Your task to perform on an android device: Empty the shopping cart on walmart.com. Search for logitech g933 on walmart.com, select the first entry, and add it to the cart. Image 0: 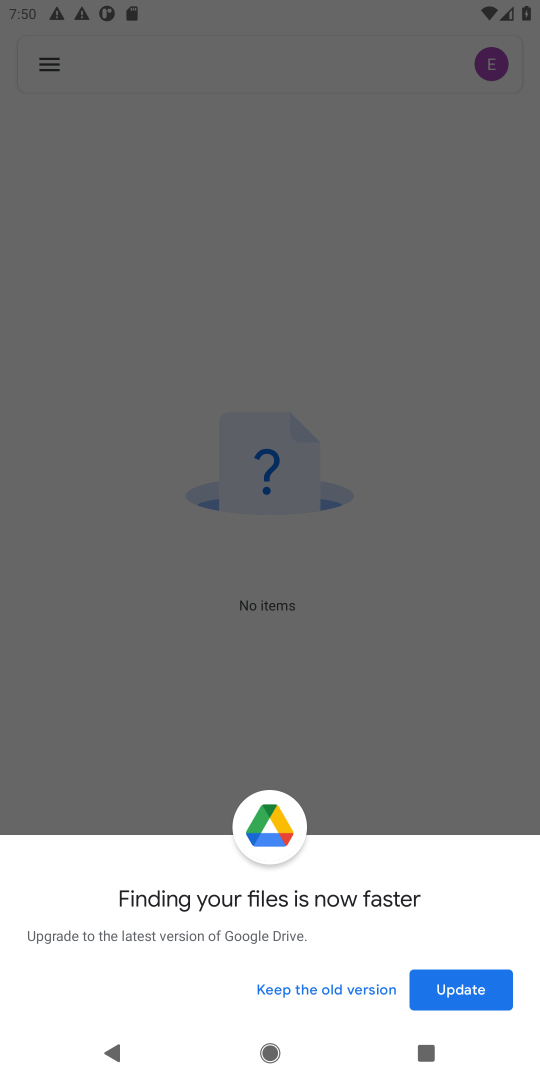
Step 0: click (364, 855)
Your task to perform on an android device: Empty the shopping cart on walmart.com. Search for logitech g933 on walmart.com, select the first entry, and add it to the cart. Image 1: 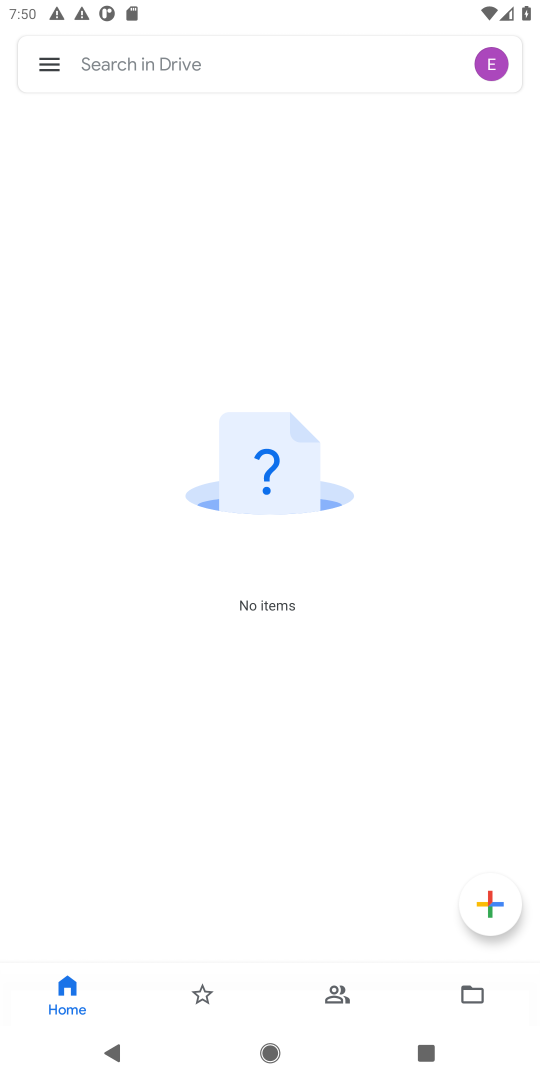
Step 1: press home button
Your task to perform on an android device: Empty the shopping cart on walmart.com. Search for logitech g933 on walmart.com, select the first entry, and add it to the cart. Image 2: 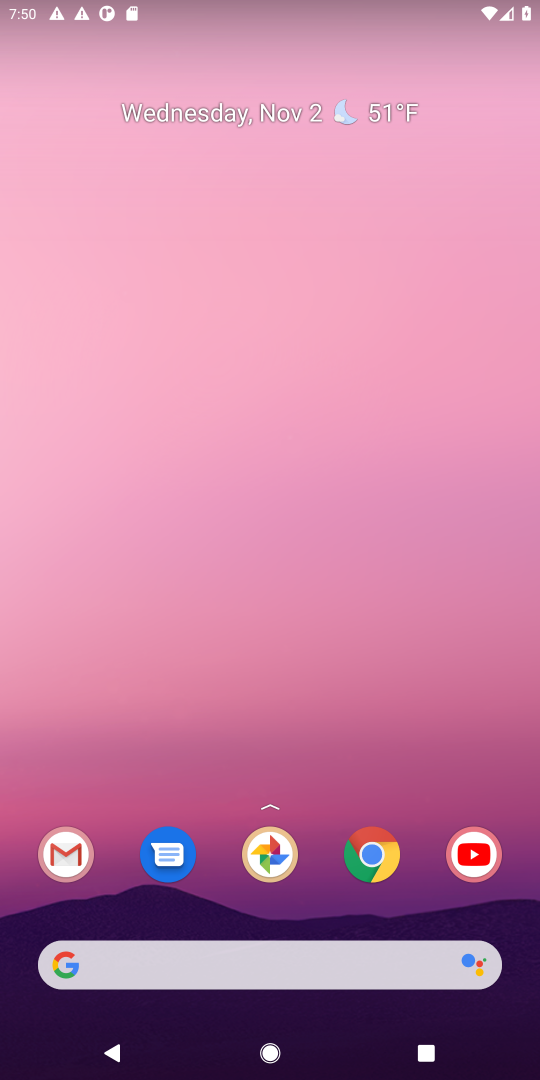
Step 2: click (374, 857)
Your task to perform on an android device: Empty the shopping cart on walmart.com. Search for logitech g933 on walmart.com, select the first entry, and add it to the cart. Image 3: 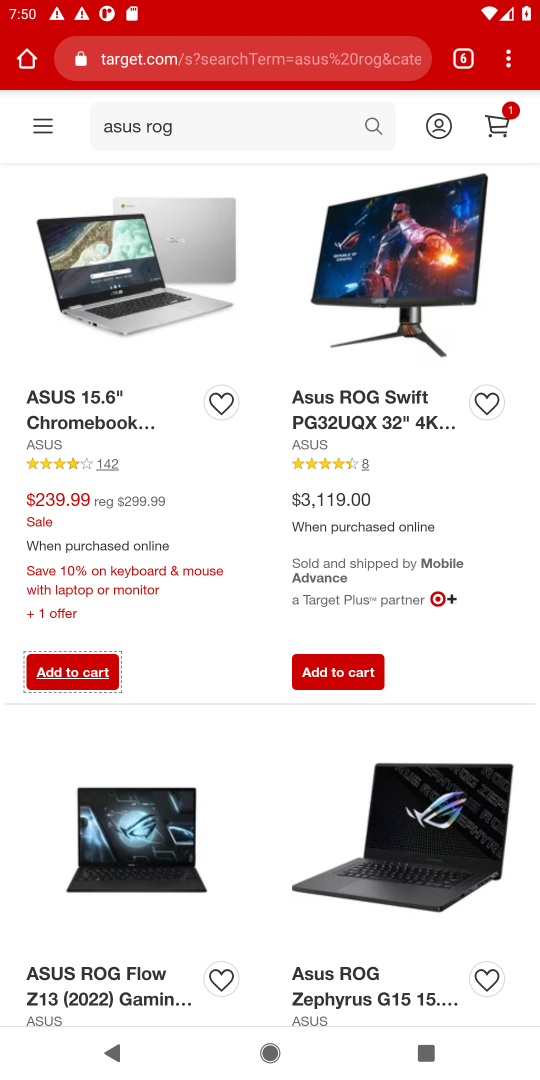
Step 3: click (461, 58)
Your task to perform on an android device: Empty the shopping cart on walmart.com. Search for logitech g933 on walmart.com, select the first entry, and add it to the cart. Image 4: 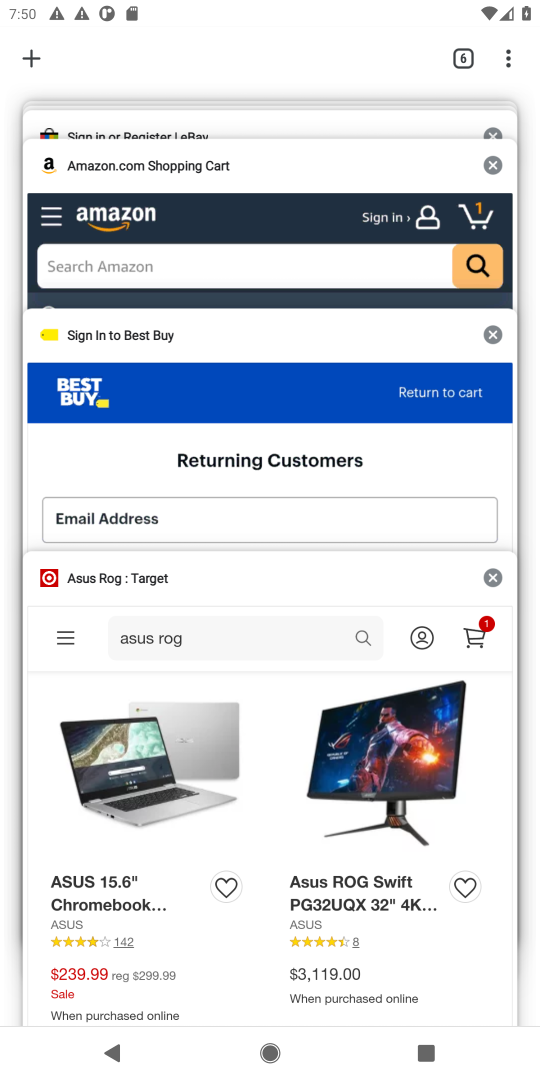
Step 4: drag from (395, 120) to (401, 401)
Your task to perform on an android device: Empty the shopping cart on walmart.com. Search for logitech g933 on walmart.com, select the first entry, and add it to the cart. Image 5: 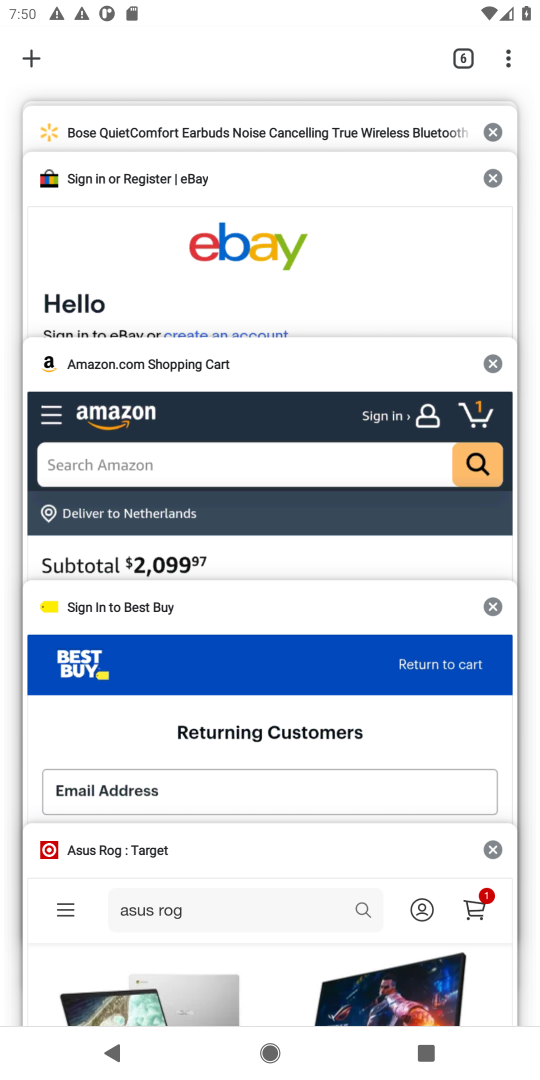
Step 5: drag from (387, 130) to (371, 372)
Your task to perform on an android device: Empty the shopping cart on walmart.com. Search for logitech g933 on walmart.com, select the first entry, and add it to the cart. Image 6: 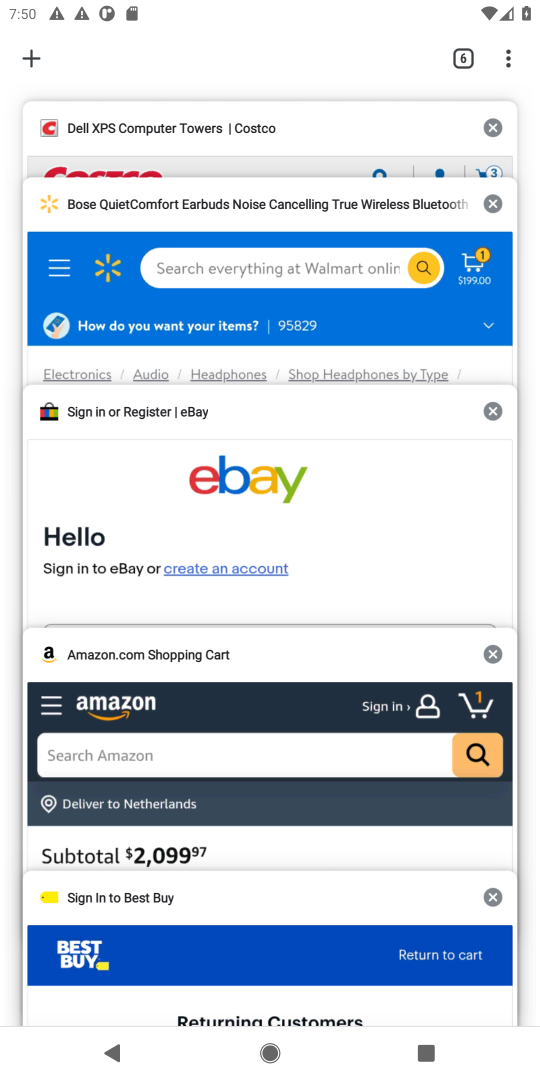
Step 6: click (342, 363)
Your task to perform on an android device: Empty the shopping cart on walmart.com. Search for logitech g933 on walmart.com, select the first entry, and add it to the cart. Image 7: 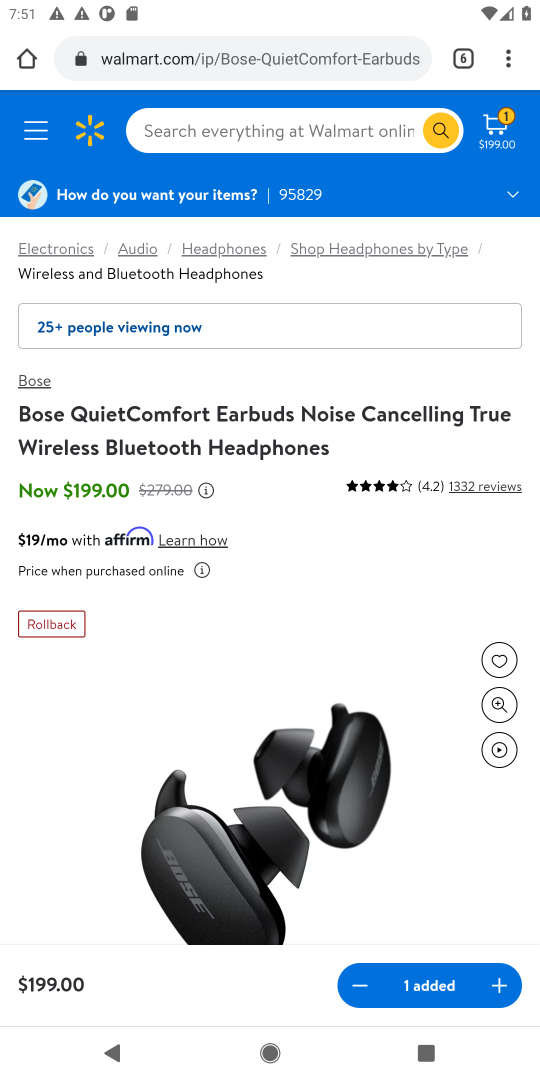
Step 7: click (282, 123)
Your task to perform on an android device: Empty the shopping cart on walmart.com. Search for logitech g933 on walmart.com, select the first entry, and add it to the cart. Image 8: 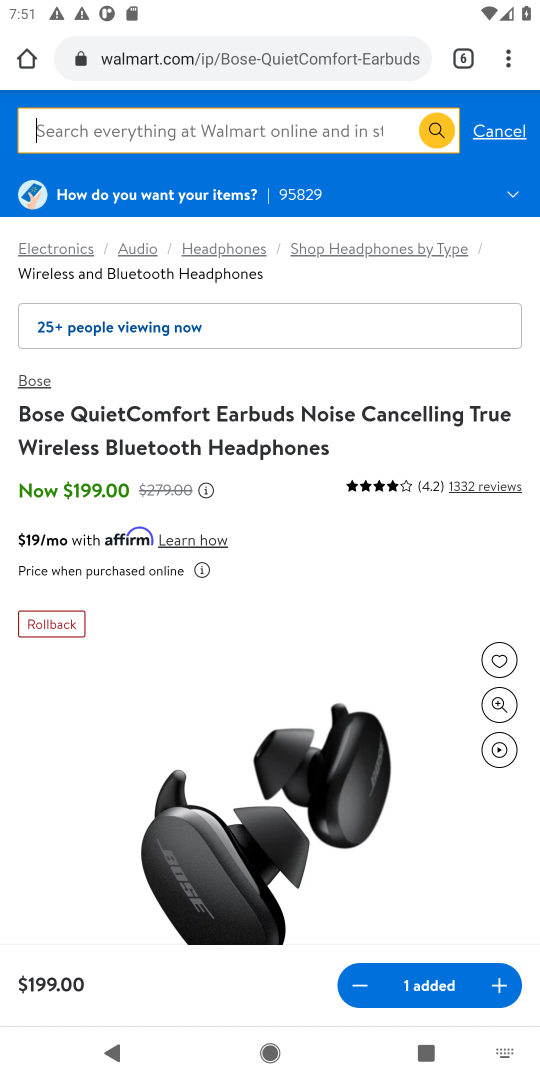
Step 8: type "logitech g933"
Your task to perform on an android device: Empty the shopping cart on walmart.com. Search for logitech g933 on walmart.com, select the first entry, and add it to the cart. Image 9: 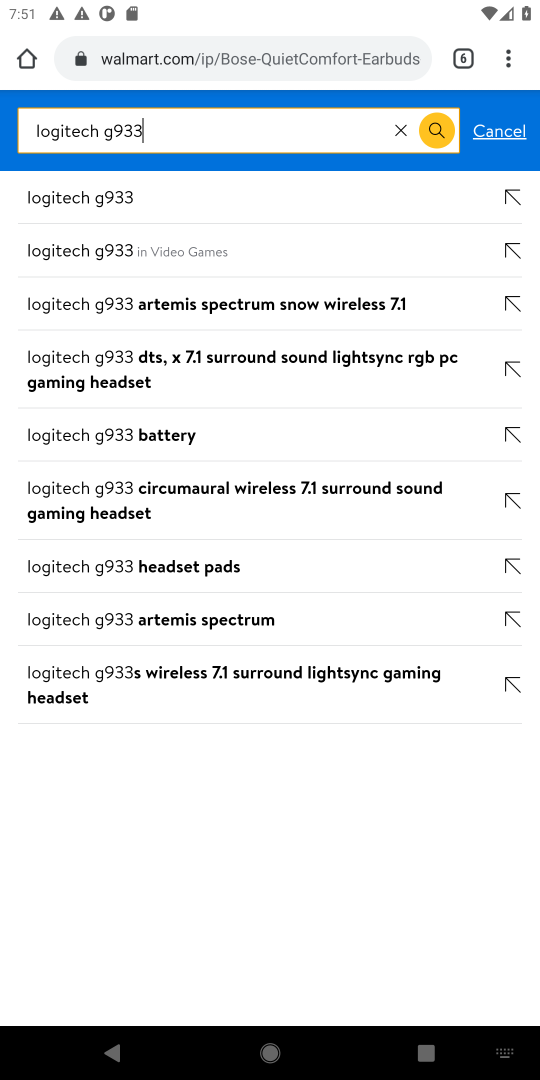
Step 9: click (105, 252)
Your task to perform on an android device: Empty the shopping cart on walmart.com. Search for logitech g933 on walmart.com, select the first entry, and add it to the cart. Image 10: 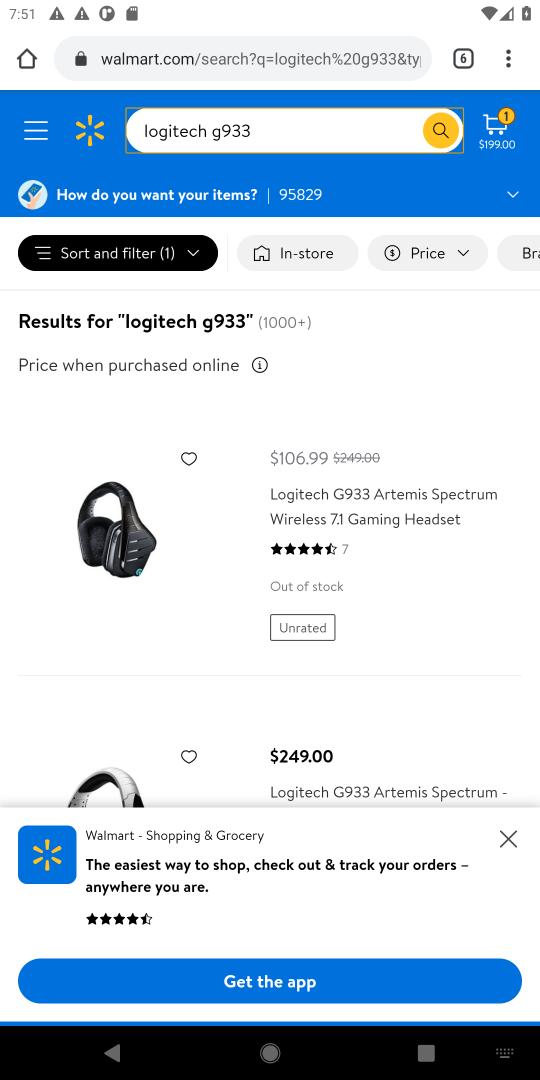
Step 10: click (506, 833)
Your task to perform on an android device: Empty the shopping cart on walmart.com. Search for logitech g933 on walmart.com, select the first entry, and add it to the cart. Image 11: 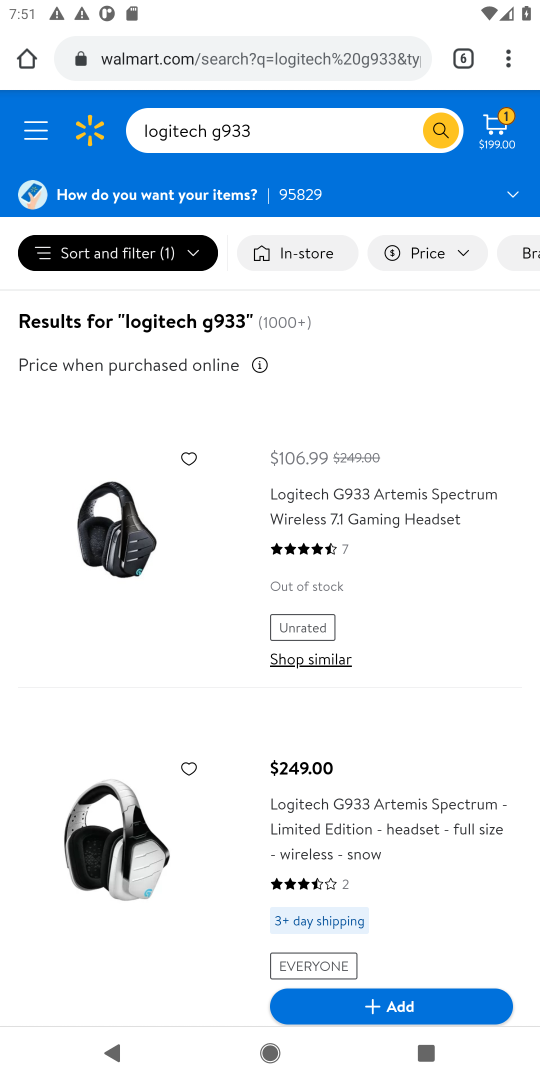
Step 11: click (389, 1000)
Your task to perform on an android device: Empty the shopping cart on walmart.com. Search for logitech g933 on walmart.com, select the first entry, and add it to the cart. Image 12: 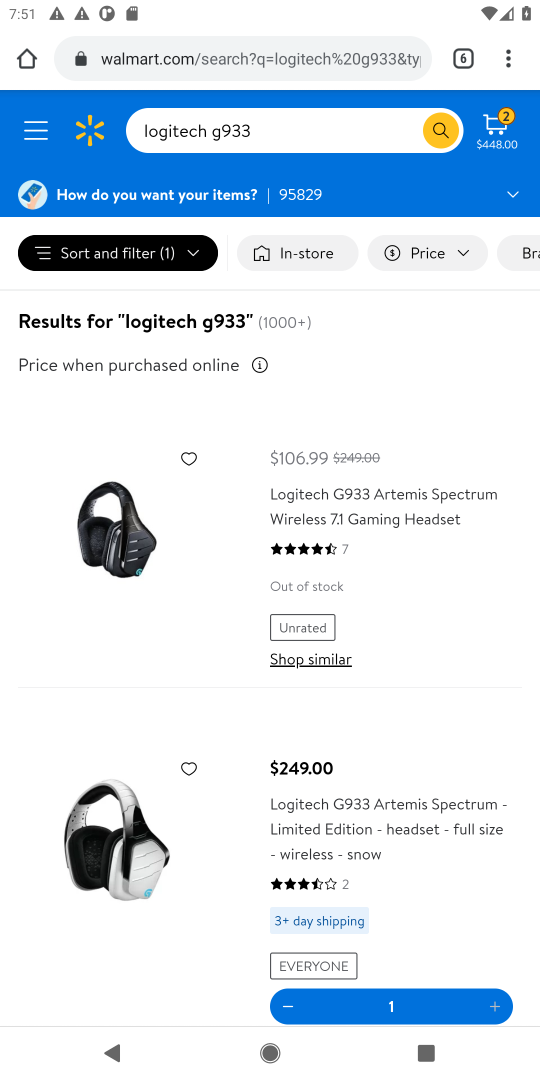
Step 12: task complete